Your task to perform on an android device: Open accessibility settings Image 0: 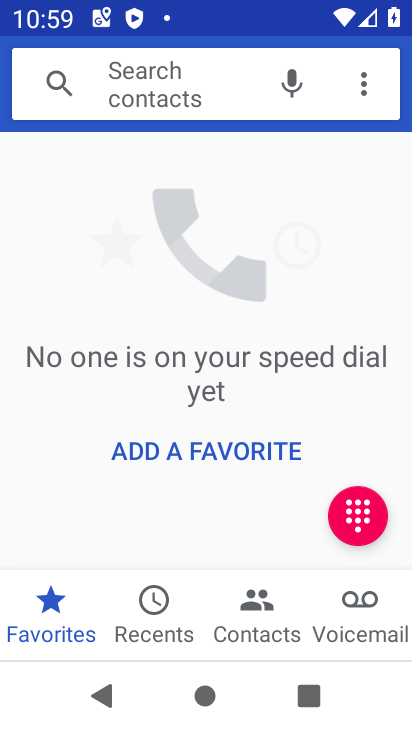
Step 0: press home button
Your task to perform on an android device: Open accessibility settings Image 1: 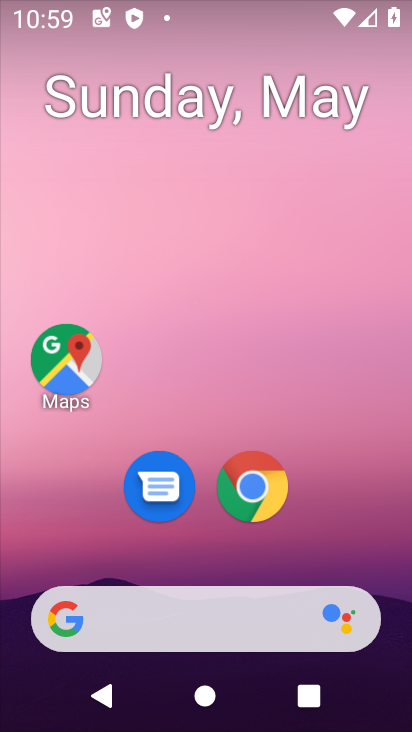
Step 1: drag from (275, 551) to (251, 44)
Your task to perform on an android device: Open accessibility settings Image 2: 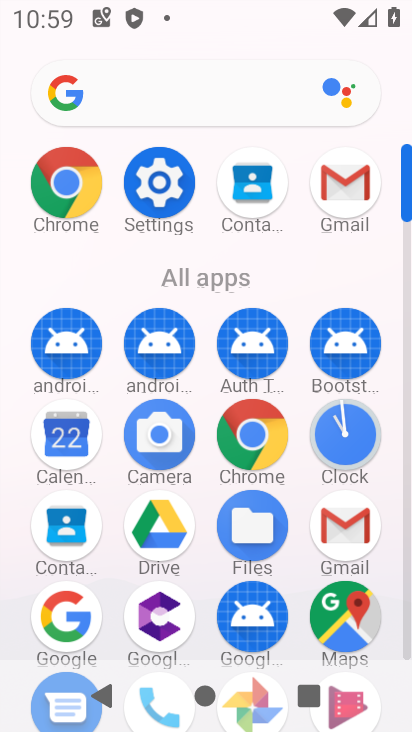
Step 2: click (167, 180)
Your task to perform on an android device: Open accessibility settings Image 3: 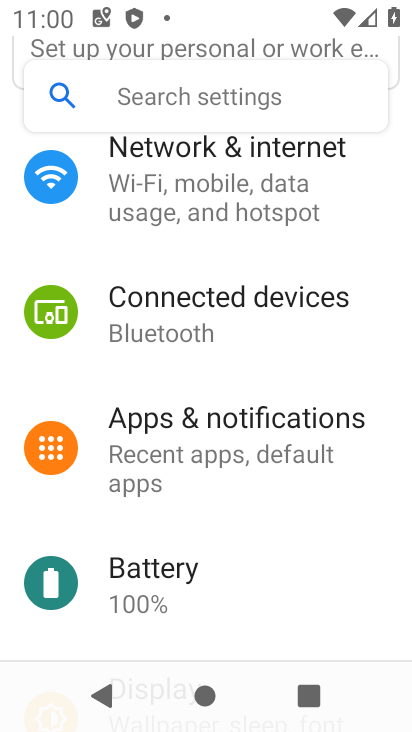
Step 3: drag from (191, 481) to (261, 184)
Your task to perform on an android device: Open accessibility settings Image 4: 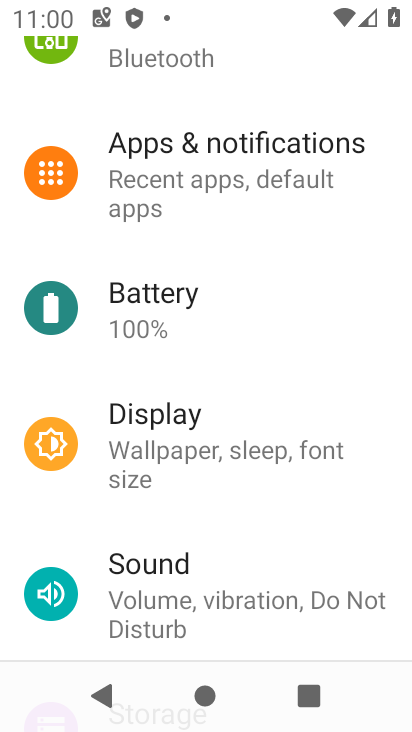
Step 4: drag from (223, 521) to (273, 256)
Your task to perform on an android device: Open accessibility settings Image 5: 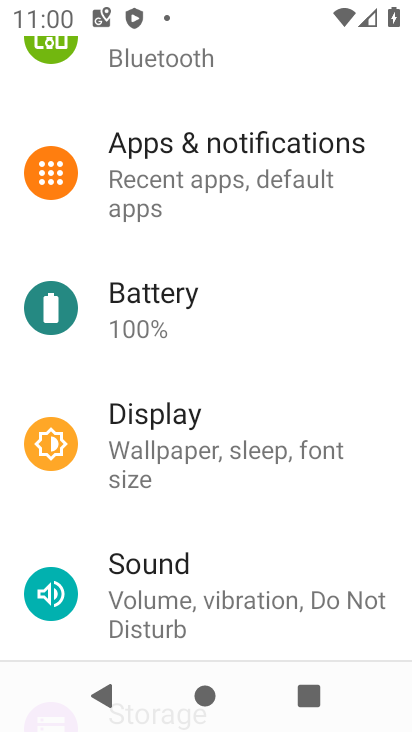
Step 5: drag from (228, 532) to (297, 251)
Your task to perform on an android device: Open accessibility settings Image 6: 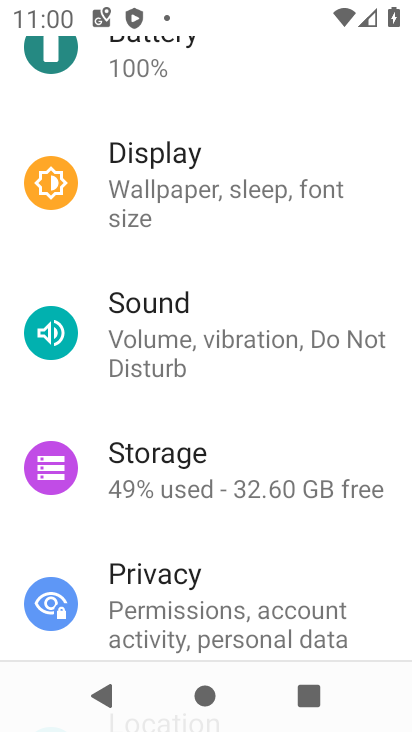
Step 6: drag from (203, 543) to (216, 116)
Your task to perform on an android device: Open accessibility settings Image 7: 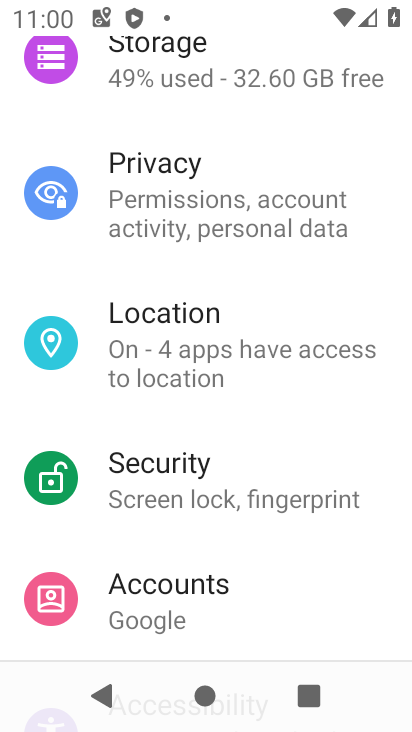
Step 7: drag from (184, 501) to (223, 95)
Your task to perform on an android device: Open accessibility settings Image 8: 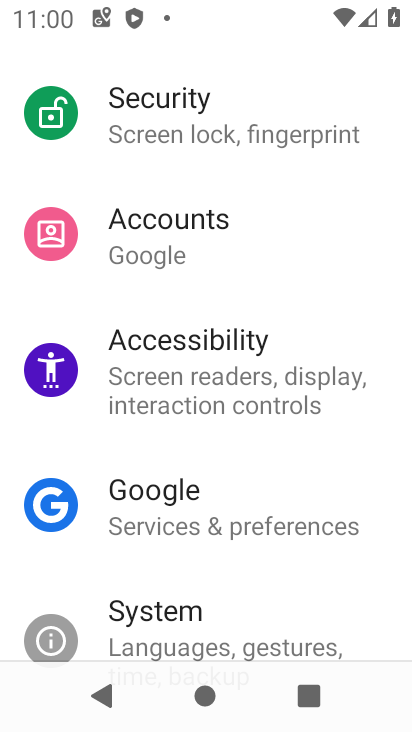
Step 8: click (191, 339)
Your task to perform on an android device: Open accessibility settings Image 9: 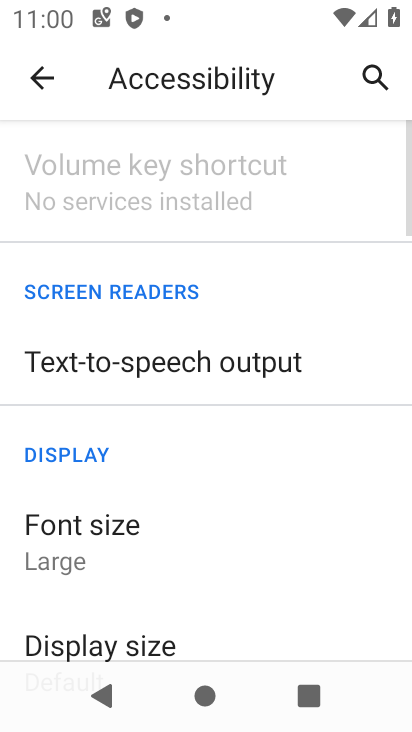
Step 9: task complete